Your task to perform on an android device: turn off translation in the chrome app Image 0: 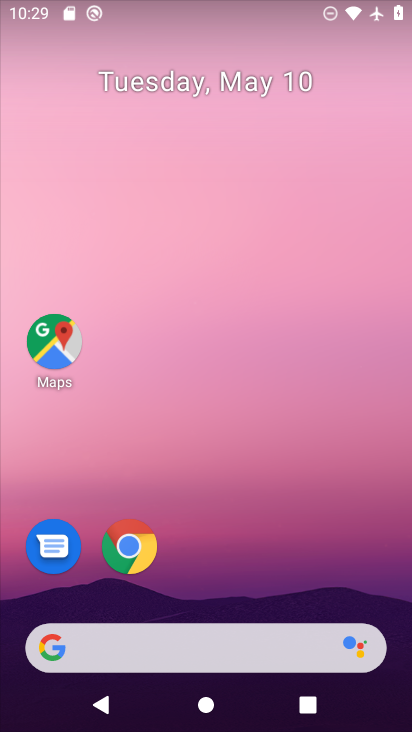
Step 0: drag from (299, 500) to (252, 85)
Your task to perform on an android device: turn off translation in the chrome app Image 1: 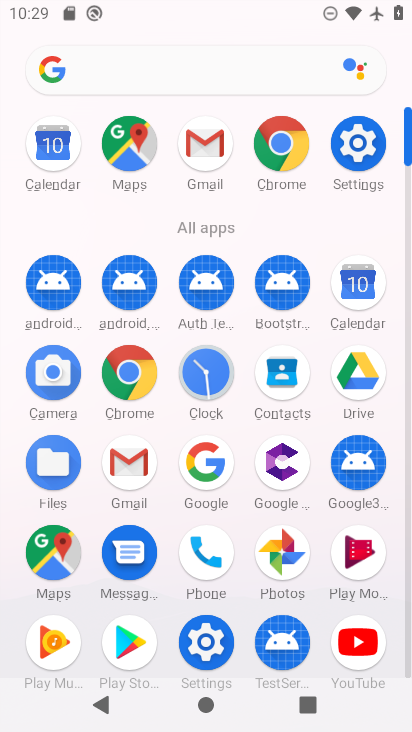
Step 1: click (118, 365)
Your task to perform on an android device: turn off translation in the chrome app Image 2: 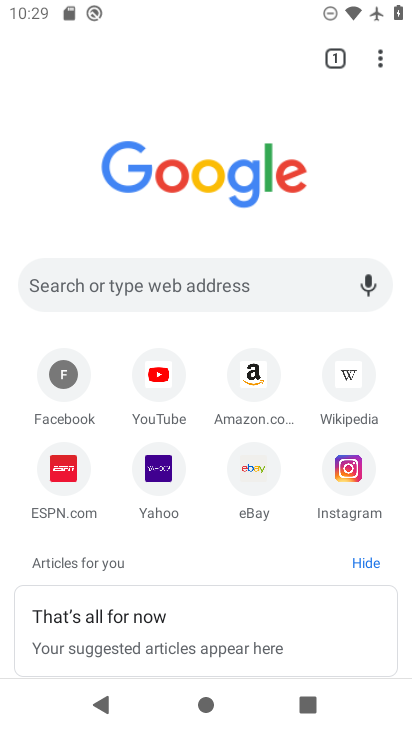
Step 2: drag from (379, 59) to (180, 478)
Your task to perform on an android device: turn off translation in the chrome app Image 3: 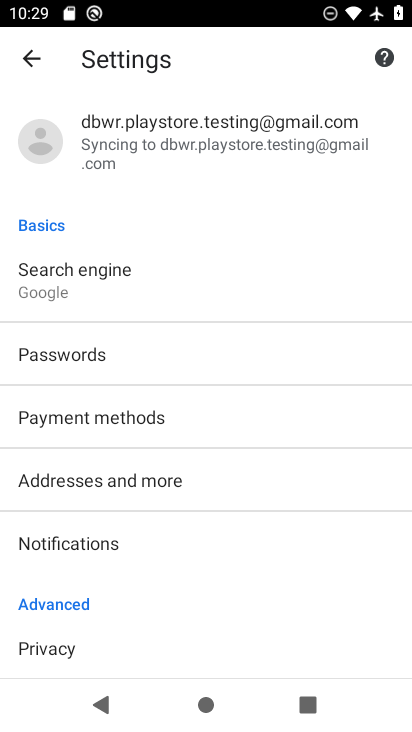
Step 3: drag from (267, 568) to (221, 201)
Your task to perform on an android device: turn off translation in the chrome app Image 4: 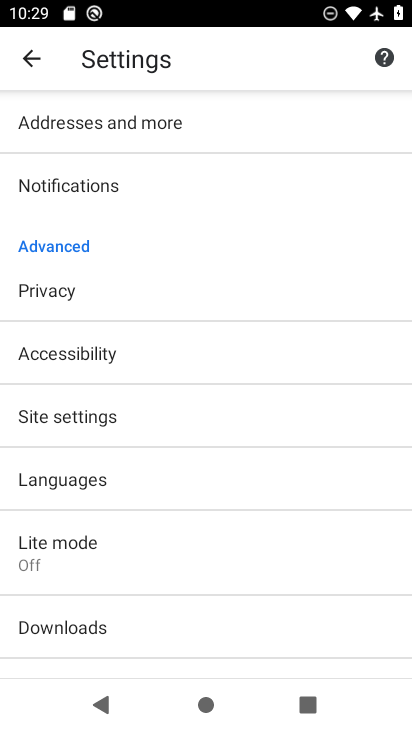
Step 4: click (112, 479)
Your task to perform on an android device: turn off translation in the chrome app Image 5: 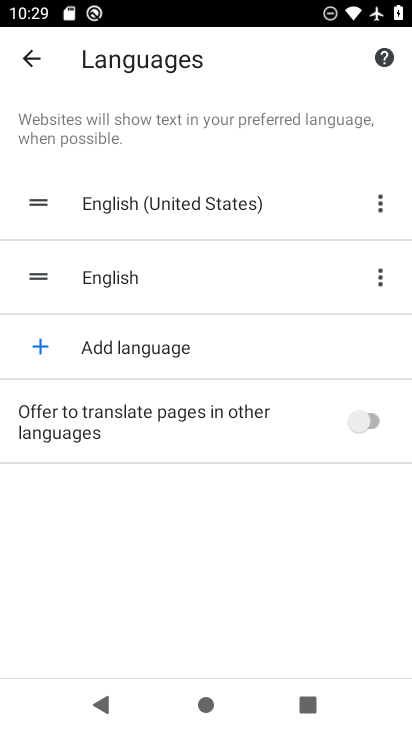
Step 5: task complete